Your task to perform on an android device: Show me popular games on the Play Store Image 0: 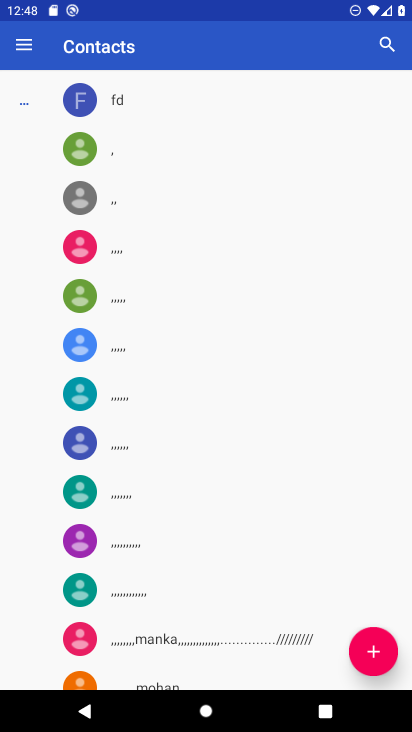
Step 0: press home button
Your task to perform on an android device: Show me popular games on the Play Store Image 1: 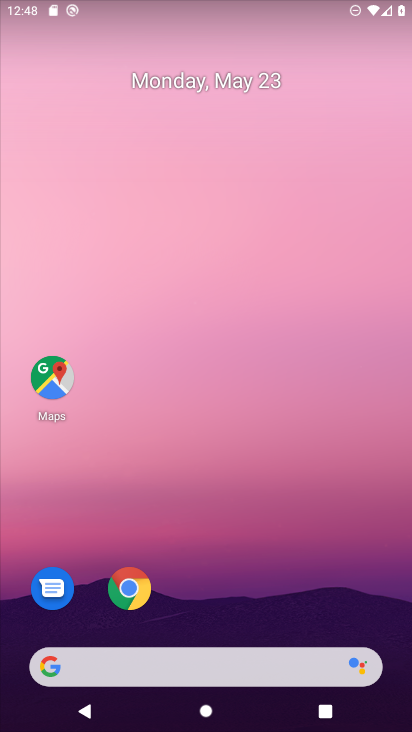
Step 1: drag from (194, 644) to (229, 247)
Your task to perform on an android device: Show me popular games on the Play Store Image 2: 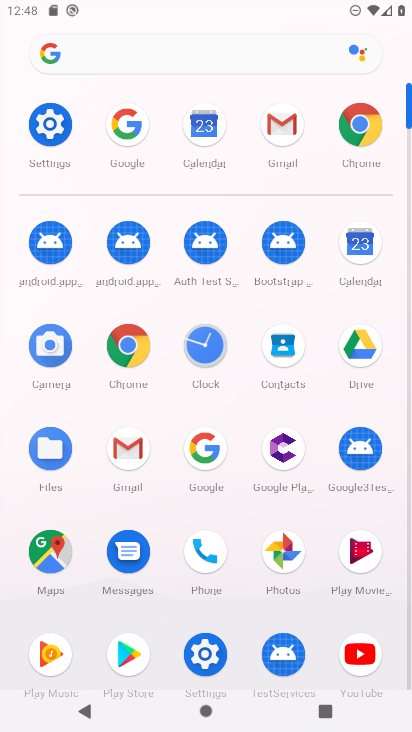
Step 2: click (126, 659)
Your task to perform on an android device: Show me popular games on the Play Store Image 3: 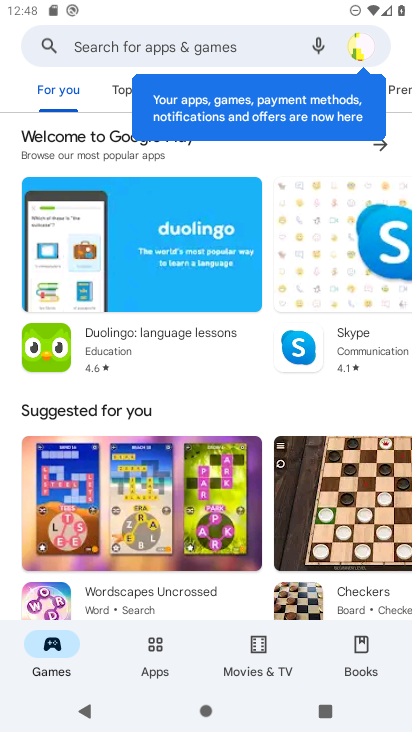
Step 3: click (186, 53)
Your task to perform on an android device: Show me popular games on the Play Store Image 4: 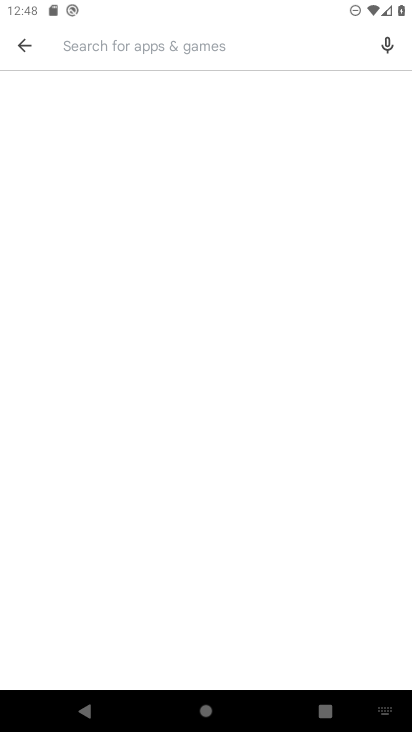
Step 4: type "popular games"
Your task to perform on an android device: Show me popular games on the Play Store Image 5: 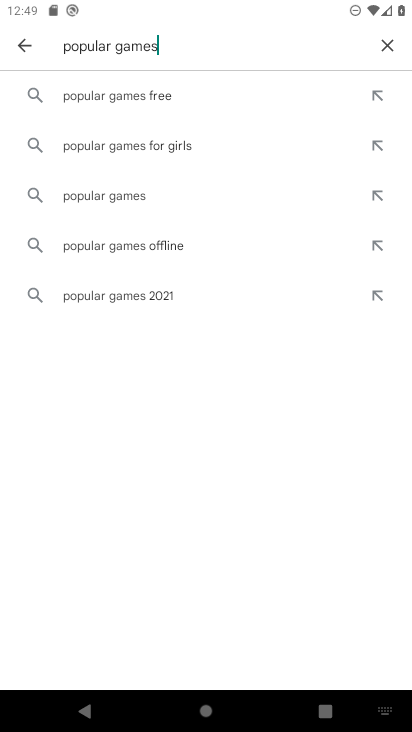
Step 5: click (115, 196)
Your task to perform on an android device: Show me popular games on the Play Store Image 6: 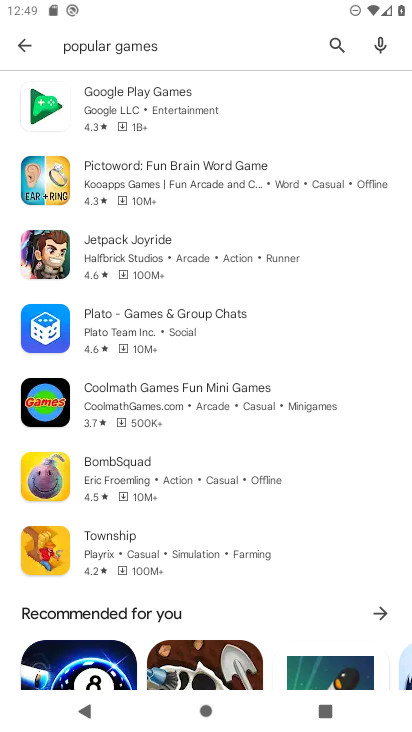
Step 6: task complete